Your task to perform on an android device: turn on notifications settings in the gmail app Image 0: 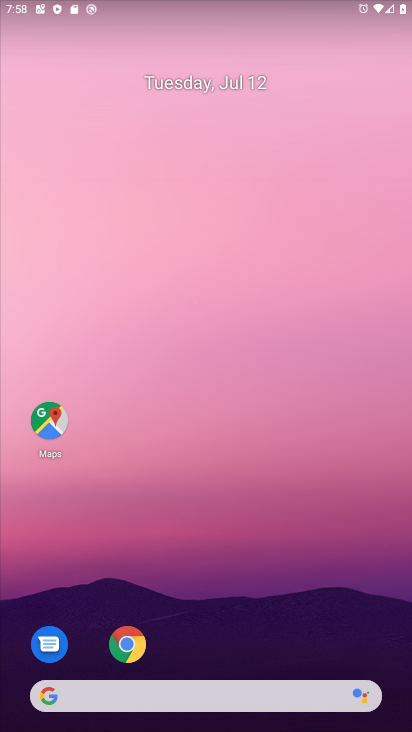
Step 0: drag from (190, 681) to (246, 387)
Your task to perform on an android device: turn on notifications settings in the gmail app Image 1: 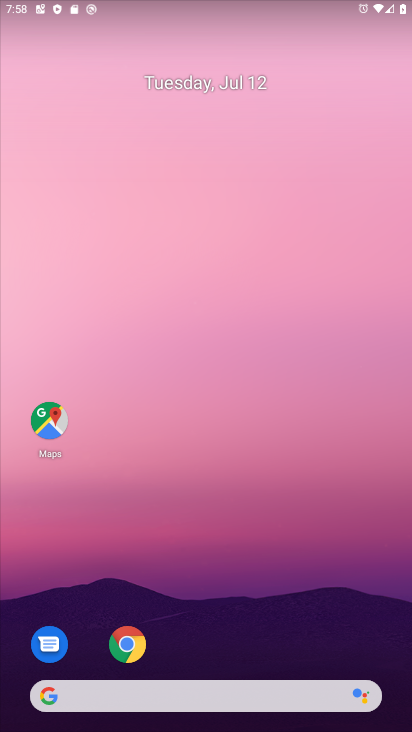
Step 1: drag from (241, 685) to (241, 227)
Your task to perform on an android device: turn on notifications settings in the gmail app Image 2: 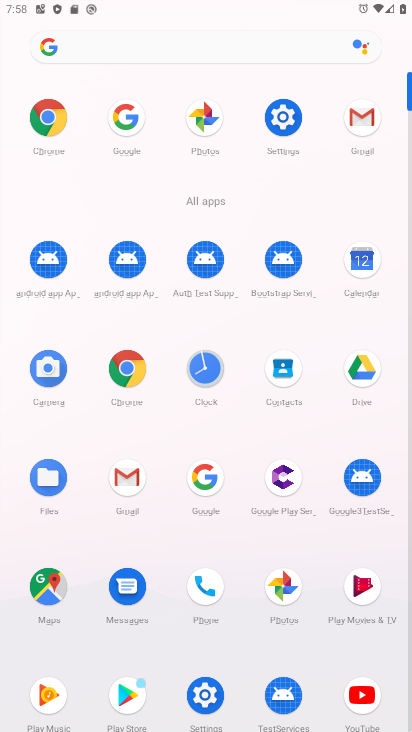
Step 2: click (367, 129)
Your task to perform on an android device: turn on notifications settings in the gmail app Image 3: 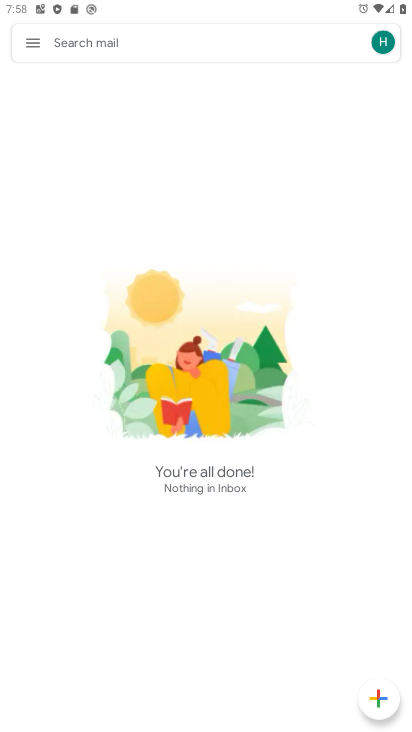
Step 3: click (25, 42)
Your task to perform on an android device: turn on notifications settings in the gmail app Image 4: 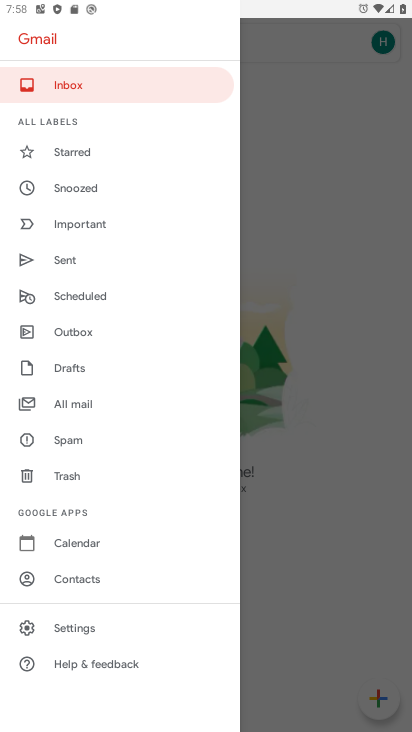
Step 4: click (67, 406)
Your task to perform on an android device: turn on notifications settings in the gmail app Image 5: 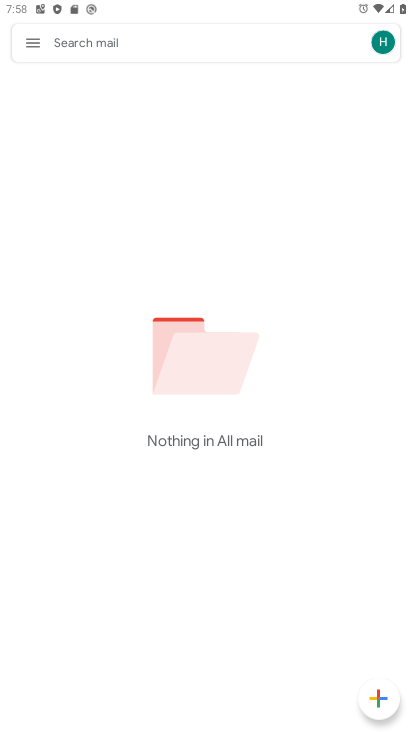
Step 5: click (34, 43)
Your task to perform on an android device: turn on notifications settings in the gmail app Image 6: 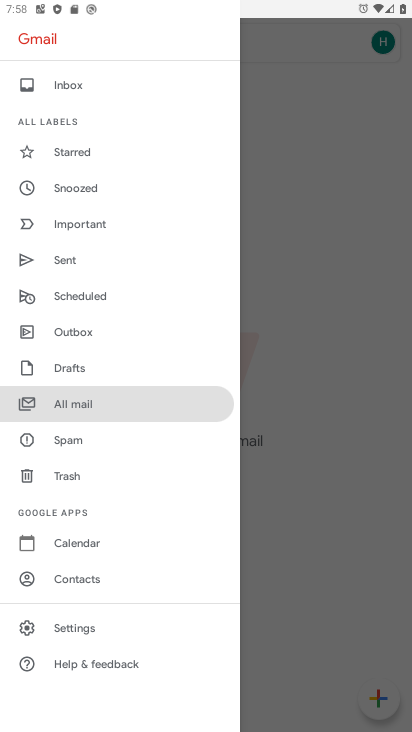
Step 6: click (76, 627)
Your task to perform on an android device: turn on notifications settings in the gmail app Image 7: 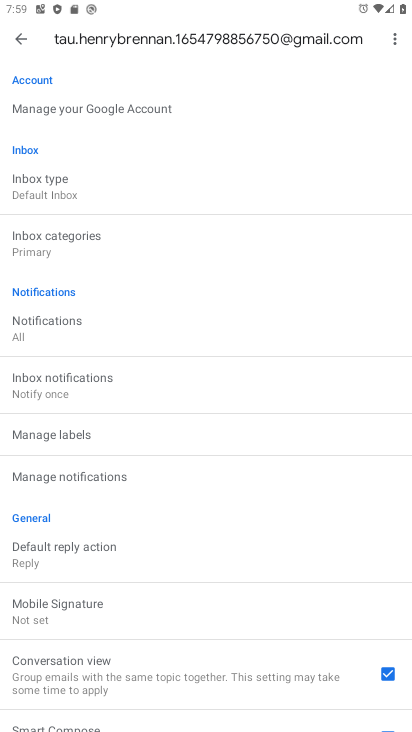
Step 7: click (62, 482)
Your task to perform on an android device: turn on notifications settings in the gmail app Image 8: 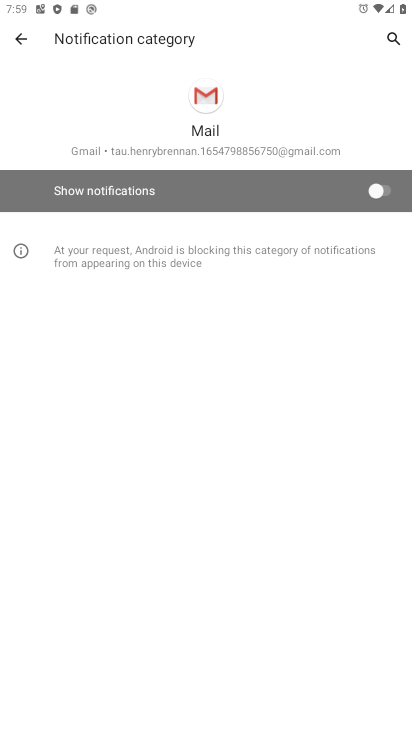
Step 8: click (382, 191)
Your task to perform on an android device: turn on notifications settings in the gmail app Image 9: 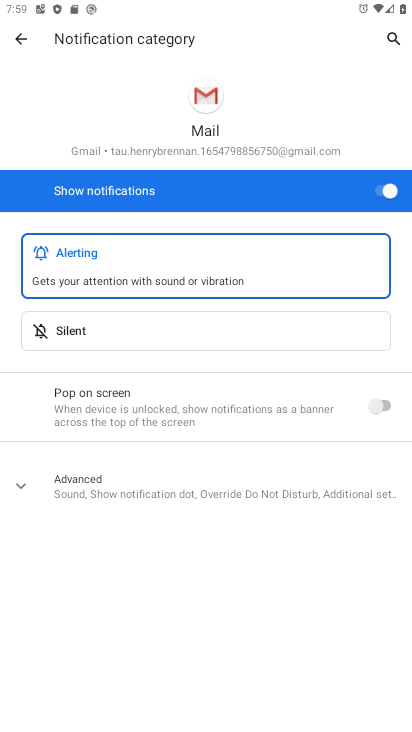
Step 9: task complete